Your task to perform on an android device: Open Google Chrome and open the bookmarks view Image 0: 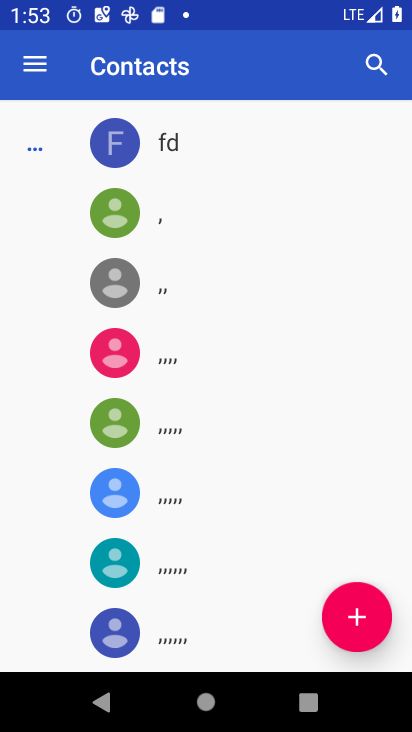
Step 0: press home button
Your task to perform on an android device: Open Google Chrome and open the bookmarks view Image 1: 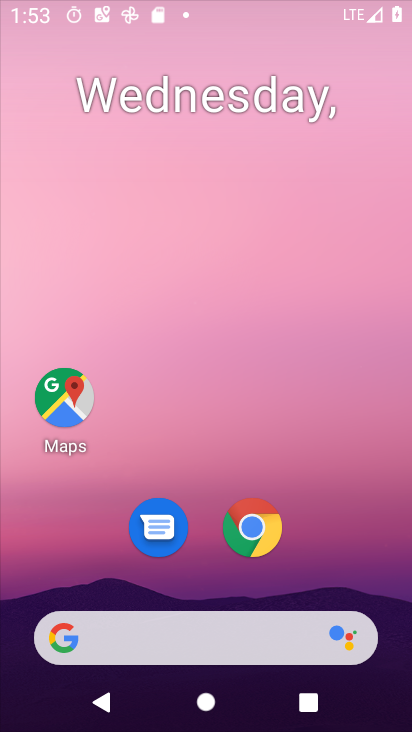
Step 1: drag from (220, 647) to (197, 93)
Your task to perform on an android device: Open Google Chrome and open the bookmarks view Image 2: 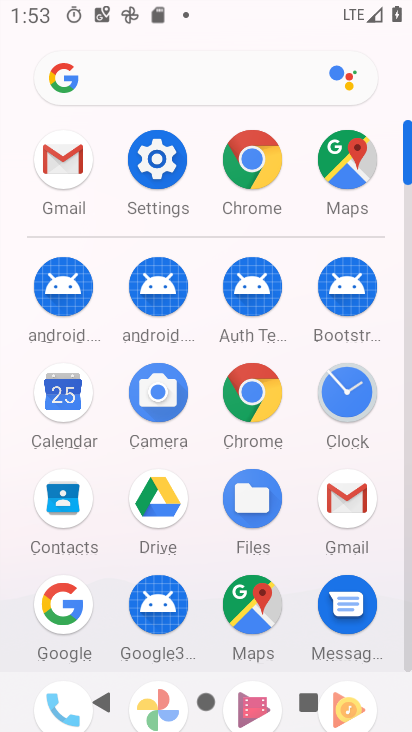
Step 2: click (263, 392)
Your task to perform on an android device: Open Google Chrome and open the bookmarks view Image 3: 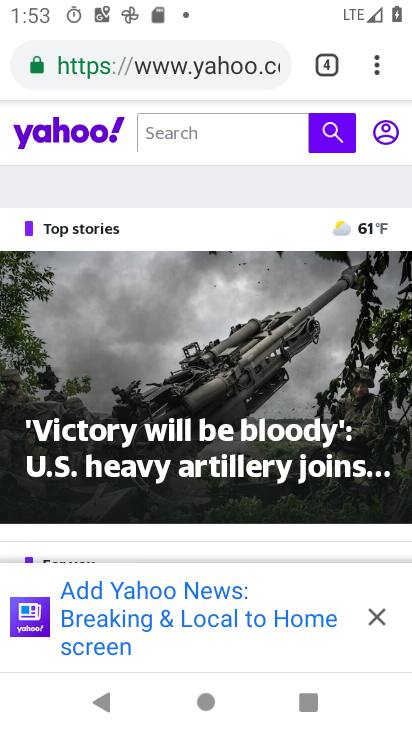
Step 3: task complete